Your task to perform on an android device: open sync settings in chrome Image 0: 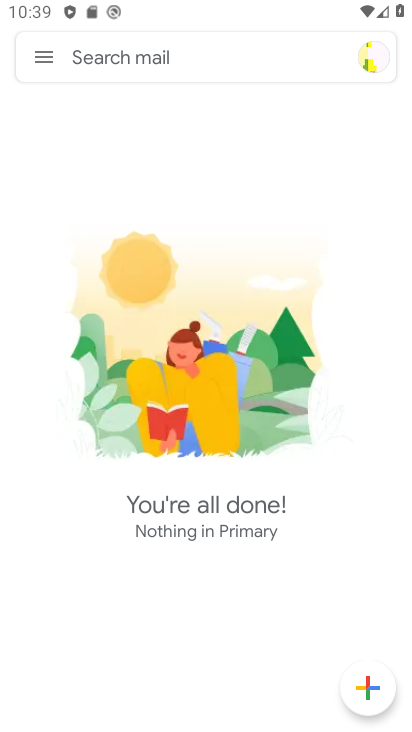
Step 0: press home button
Your task to perform on an android device: open sync settings in chrome Image 1: 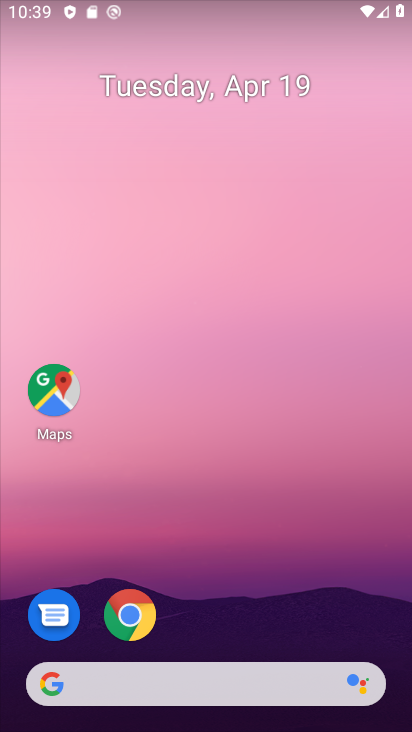
Step 1: drag from (213, 650) to (206, 237)
Your task to perform on an android device: open sync settings in chrome Image 2: 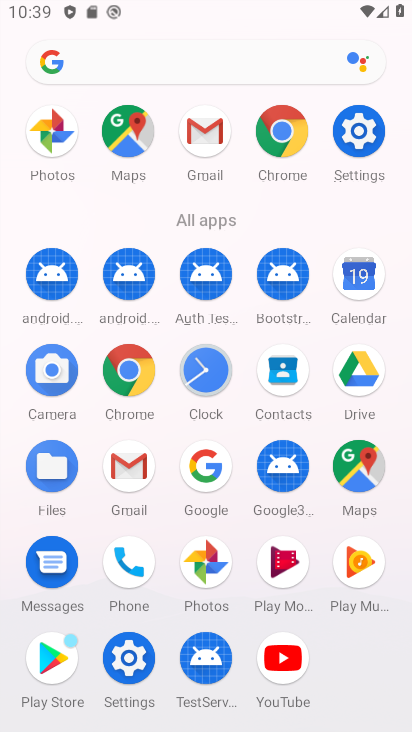
Step 2: click (283, 127)
Your task to perform on an android device: open sync settings in chrome Image 3: 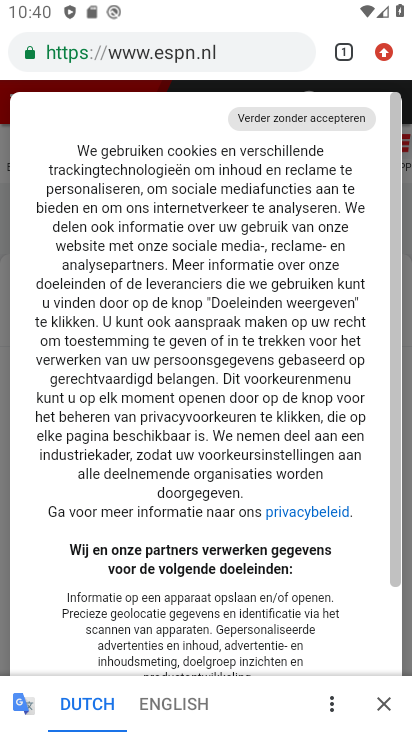
Step 3: click (388, 53)
Your task to perform on an android device: open sync settings in chrome Image 4: 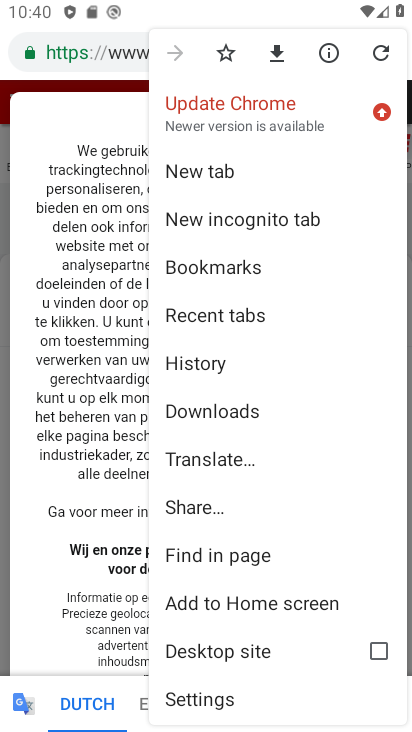
Step 4: click (201, 694)
Your task to perform on an android device: open sync settings in chrome Image 5: 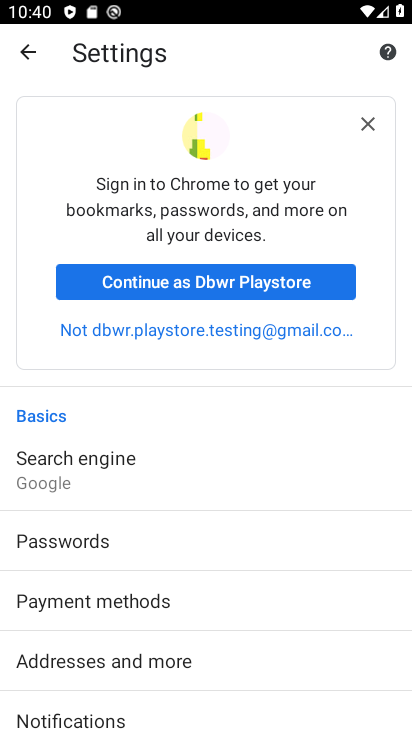
Step 5: drag from (180, 566) to (150, 160)
Your task to perform on an android device: open sync settings in chrome Image 6: 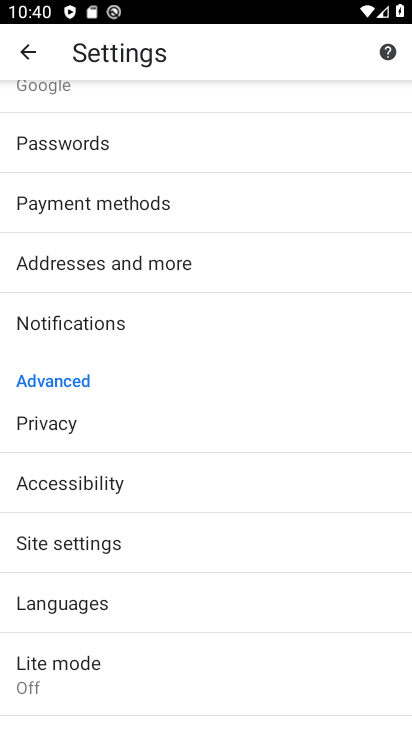
Step 6: click (80, 542)
Your task to perform on an android device: open sync settings in chrome Image 7: 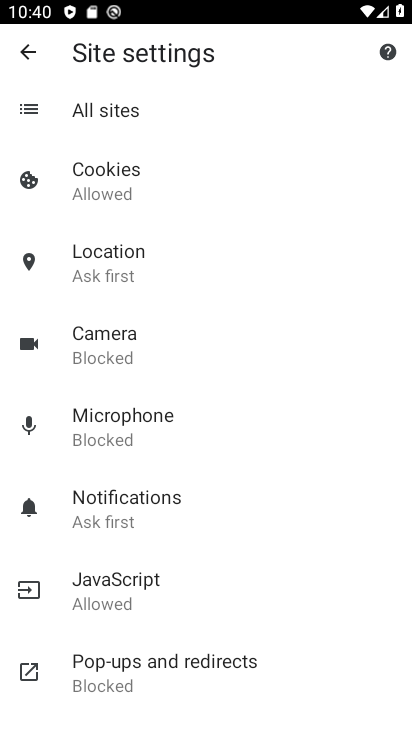
Step 7: drag from (141, 509) to (193, 192)
Your task to perform on an android device: open sync settings in chrome Image 8: 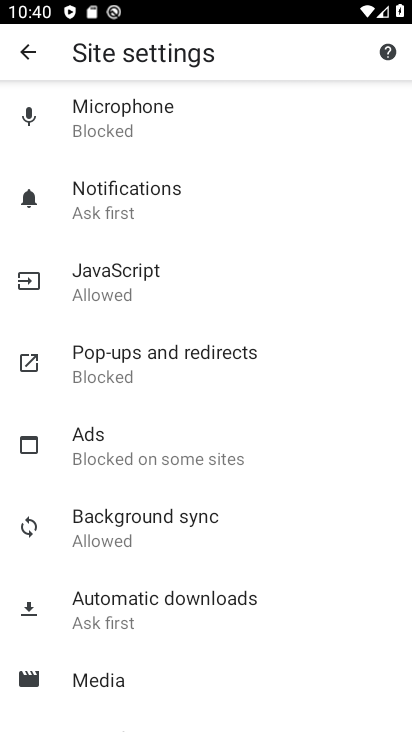
Step 8: drag from (134, 544) to (201, 254)
Your task to perform on an android device: open sync settings in chrome Image 9: 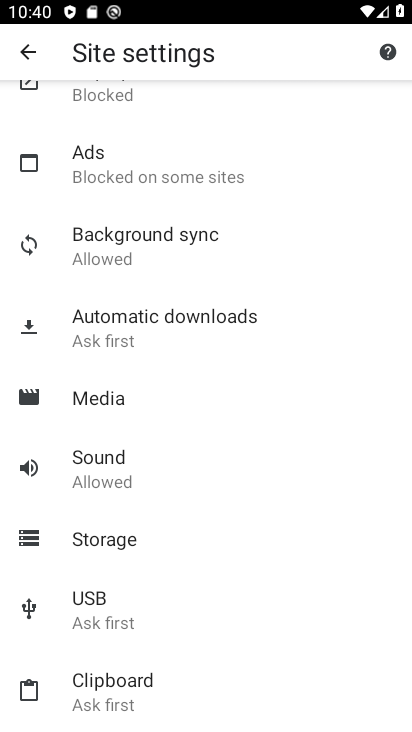
Step 9: drag from (103, 575) to (247, 145)
Your task to perform on an android device: open sync settings in chrome Image 10: 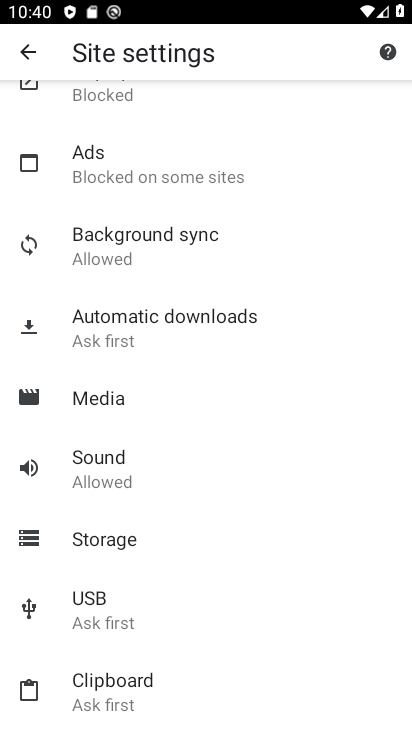
Step 10: drag from (136, 638) to (311, 140)
Your task to perform on an android device: open sync settings in chrome Image 11: 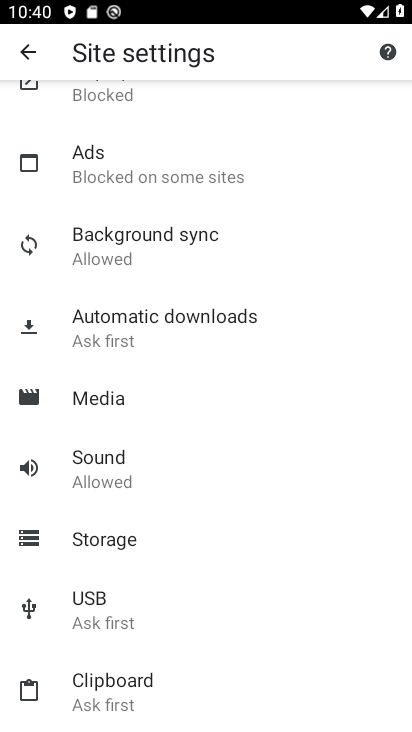
Step 11: drag from (311, 140) to (67, 596)
Your task to perform on an android device: open sync settings in chrome Image 12: 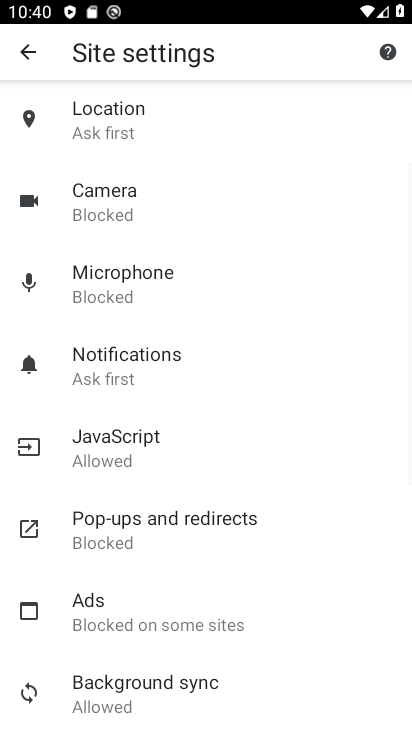
Step 12: click (17, 42)
Your task to perform on an android device: open sync settings in chrome Image 13: 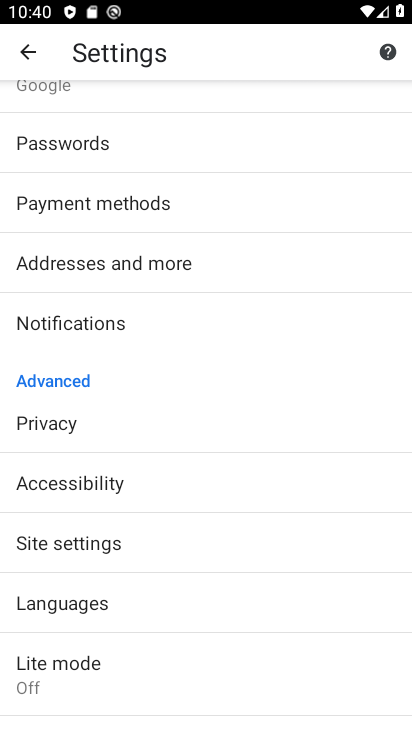
Step 13: drag from (84, 137) to (123, 543)
Your task to perform on an android device: open sync settings in chrome Image 14: 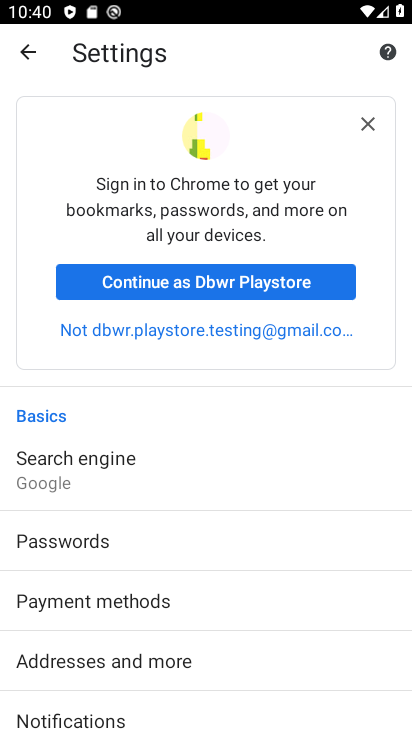
Step 14: drag from (123, 543) to (306, 8)
Your task to perform on an android device: open sync settings in chrome Image 15: 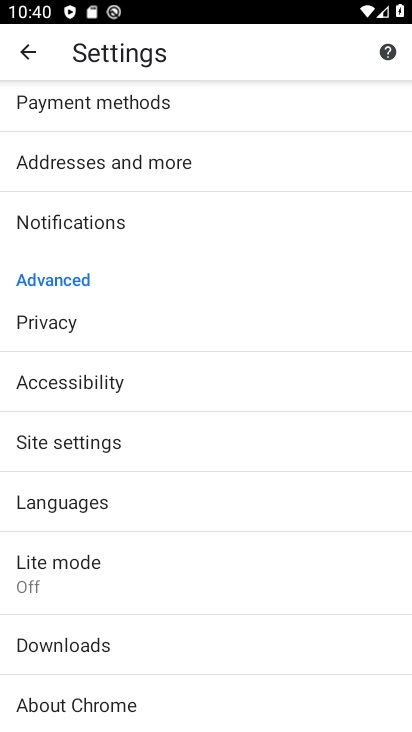
Step 15: click (218, 436)
Your task to perform on an android device: open sync settings in chrome Image 16: 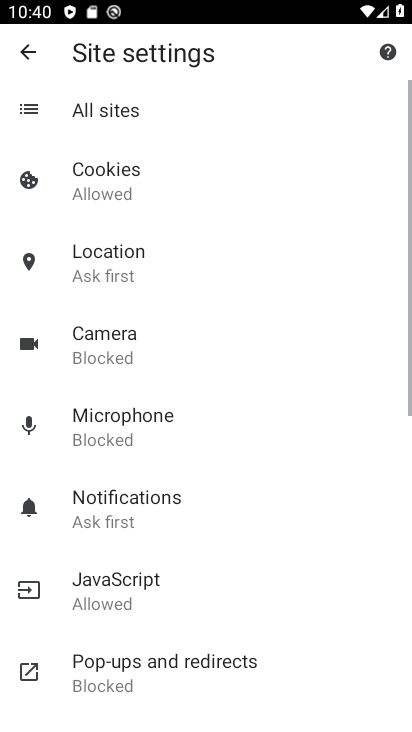
Step 16: task complete